Your task to perform on an android device: check google app version Image 0: 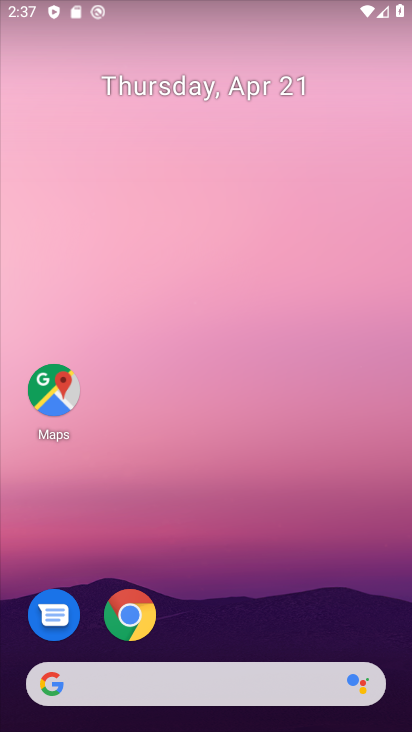
Step 0: drag from (176, 665) to (297, 98)
Your task to perform on an android device: check google app version Image 1: 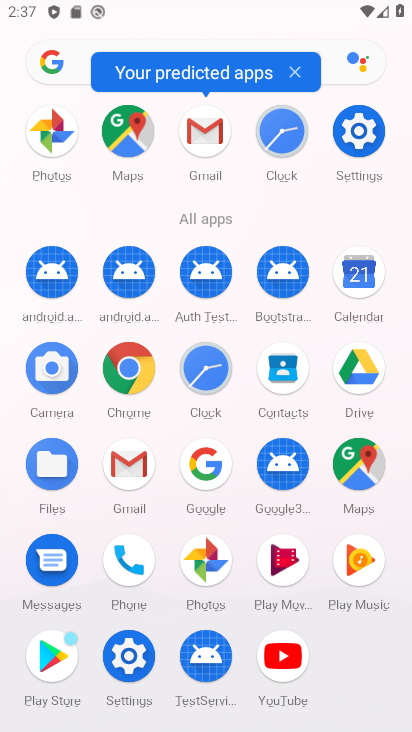
Step 1: click (206, 471)
Your task to perform on an android device: check google app version Image 2: 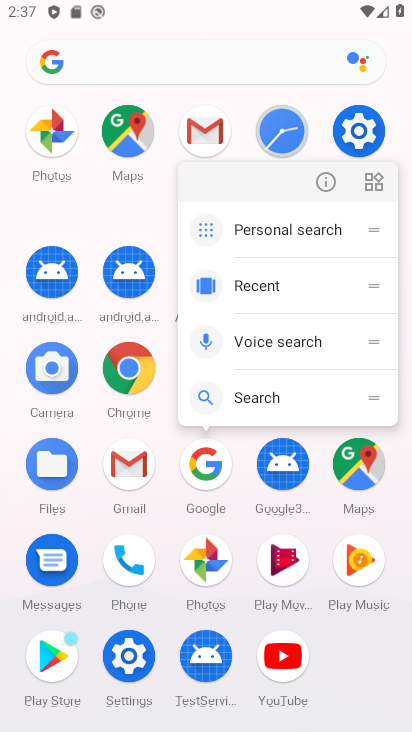
Step 2: click (323, 179)
Your task to perform on an android device: check google app version Image 3: 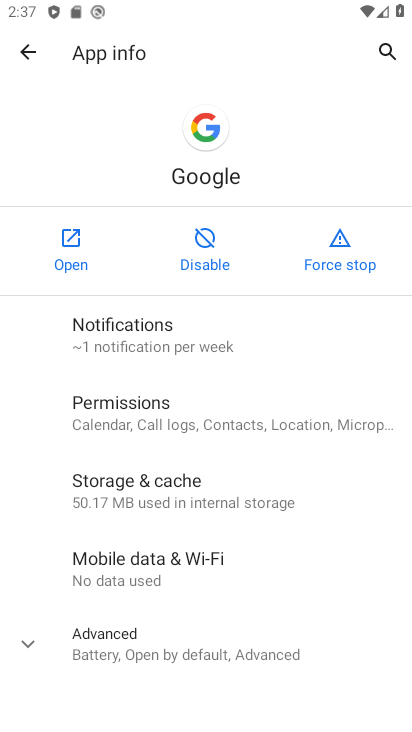
Step 3: drag from (179, 673) to (305, 216)
Your task to perform on an android device: check google app version Image 4: 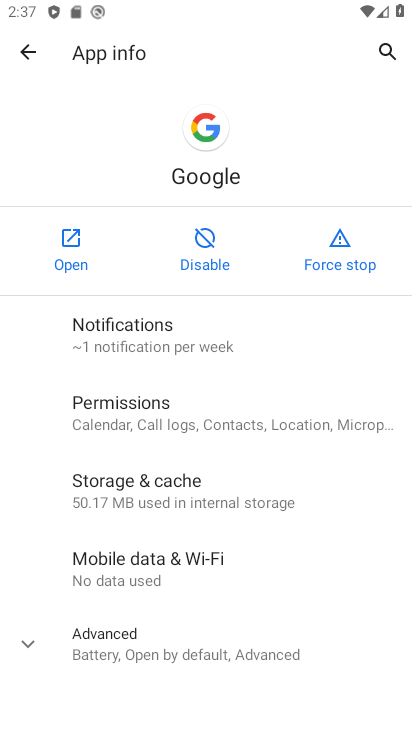
Step 4: click (69, 646)
Your task to perform on an android device: check google app version Image 5: 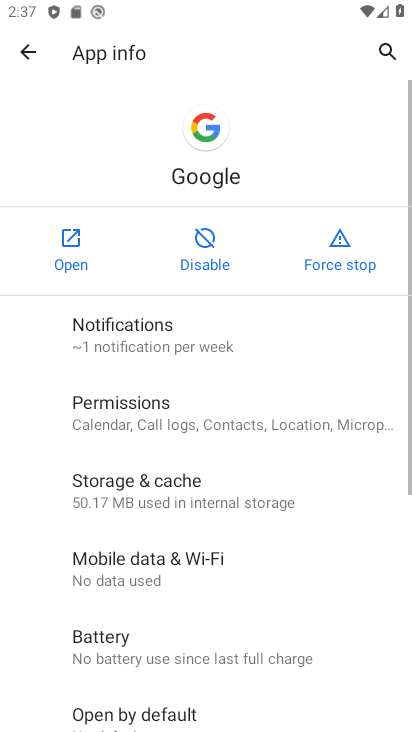
Step 5: task complete